Your task to perform on an android device: Clear the cart on ebay. Search for razer kraken on ebay, select the first entry, and add it to the cart. Image 0: 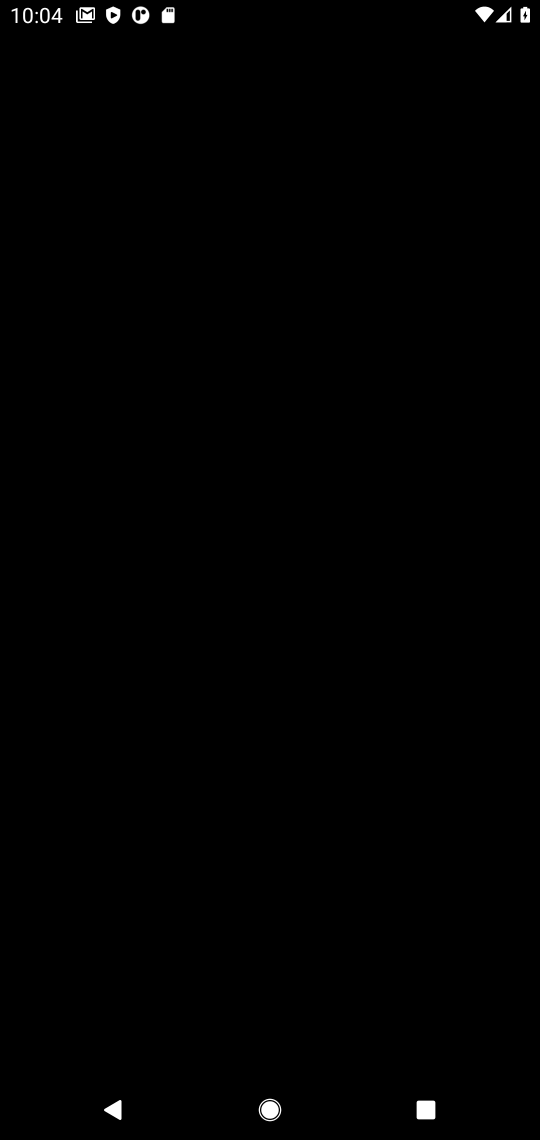
Step 0: press home button
Your task to perform on an android device: Clear the cart on ebay. Search for razer kraken on ebay, select the first entry, and add it to the cart. Image 1: 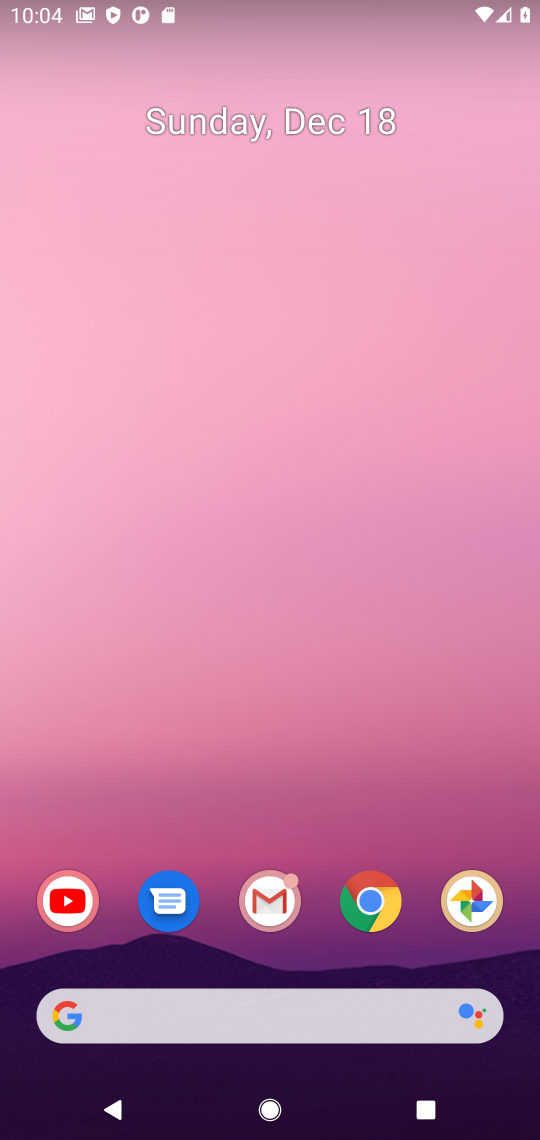
Step 1: click (358, 929)
Your task to perform on an android device: Clear the cart on ebay. Search for razer kraken on ebay, select the first entry, and add it to the cart. Image 2: 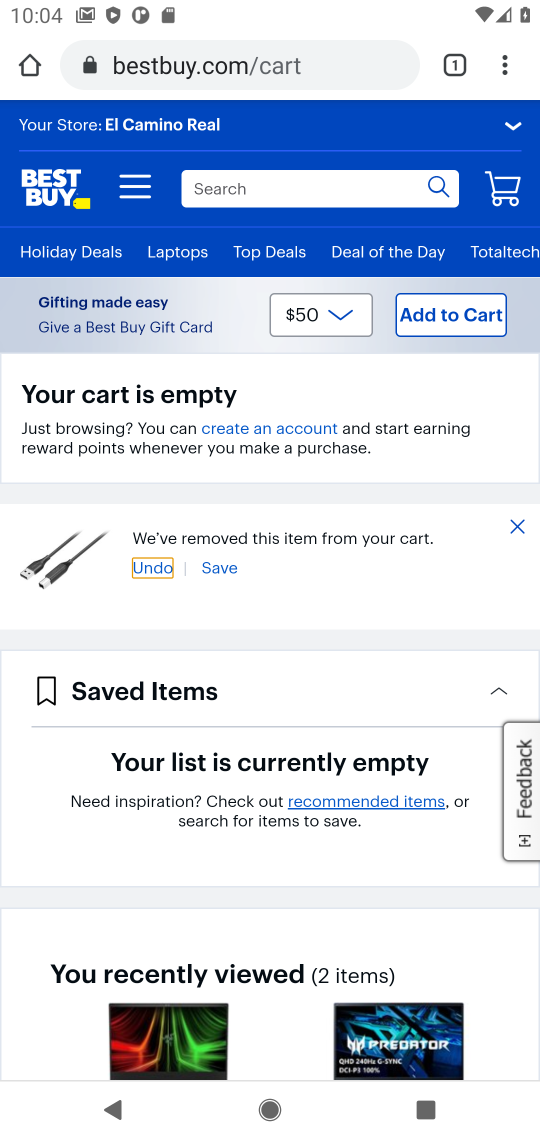
Step 2: click (161, 59)
Your task to perform on an android device: Clear the cart on ebay. Search for razer kraken on ebay, select the first entry, and add it to the cart. Image 3: 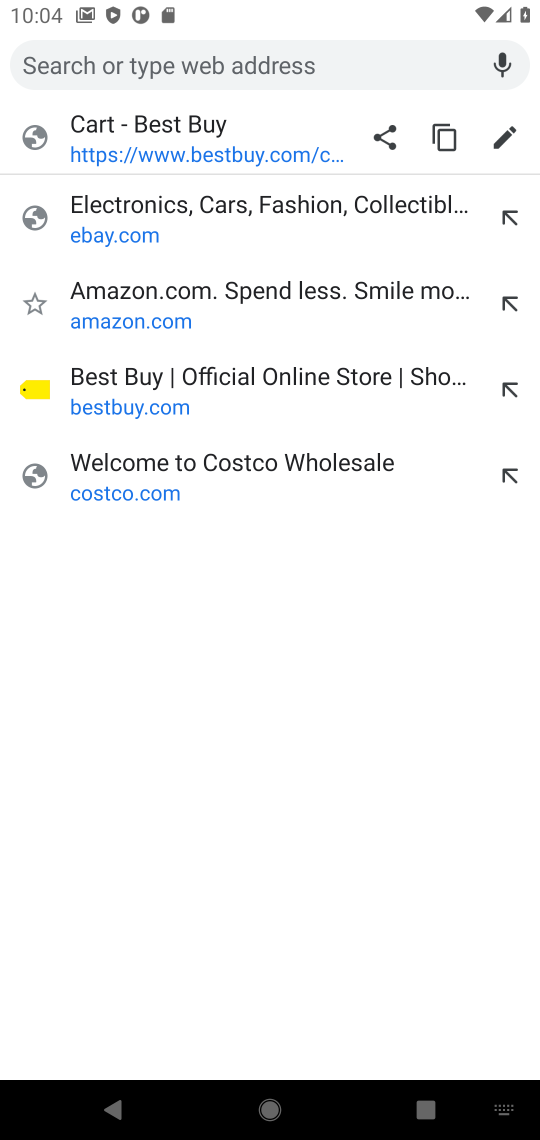
Step 3: type "ebay"
Your task to perform on an android device: Clear the cart on ebay. Search for razer kraken on ebay, select the first entry, and add it to the cart. Image 4: 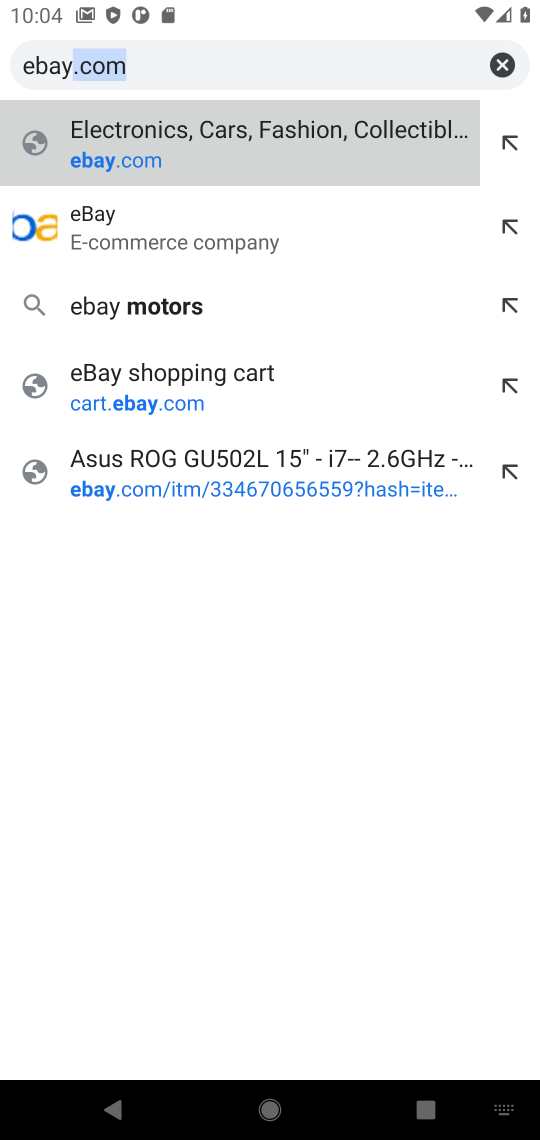
Step 4: click (229, 142)
Your task to perform on an android device: Clear the cart on ebay. Search for razer kraken on ebay, select the first entry, and add it to the cart. Image 5: 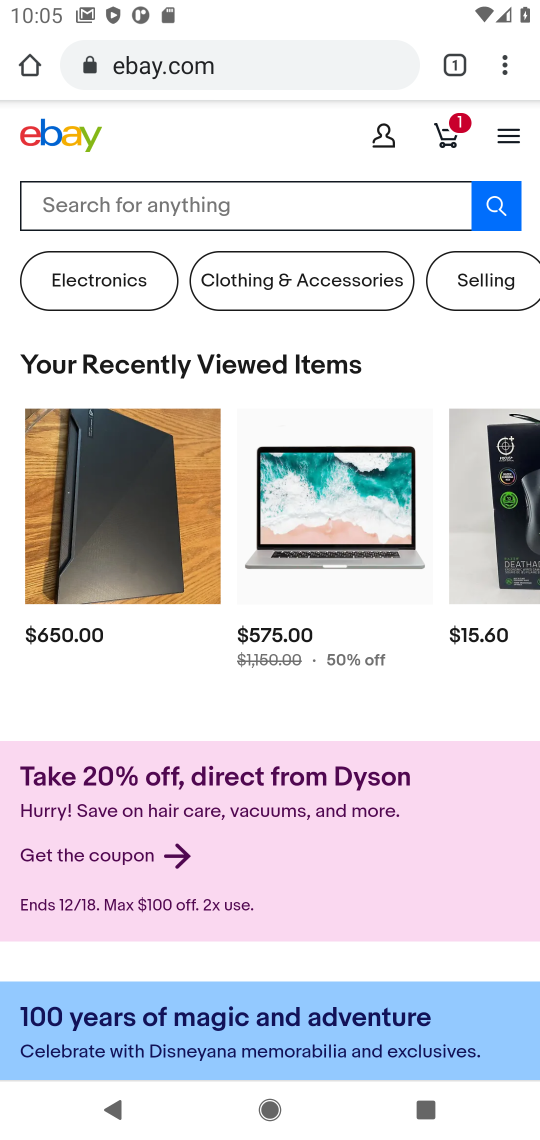
Step 5: click (236, 224)
Your task to perform on an android device: Clear the cart on ebay. Search for razer kraken on ebay, select the first entry, and add it to the cart. Image 6: 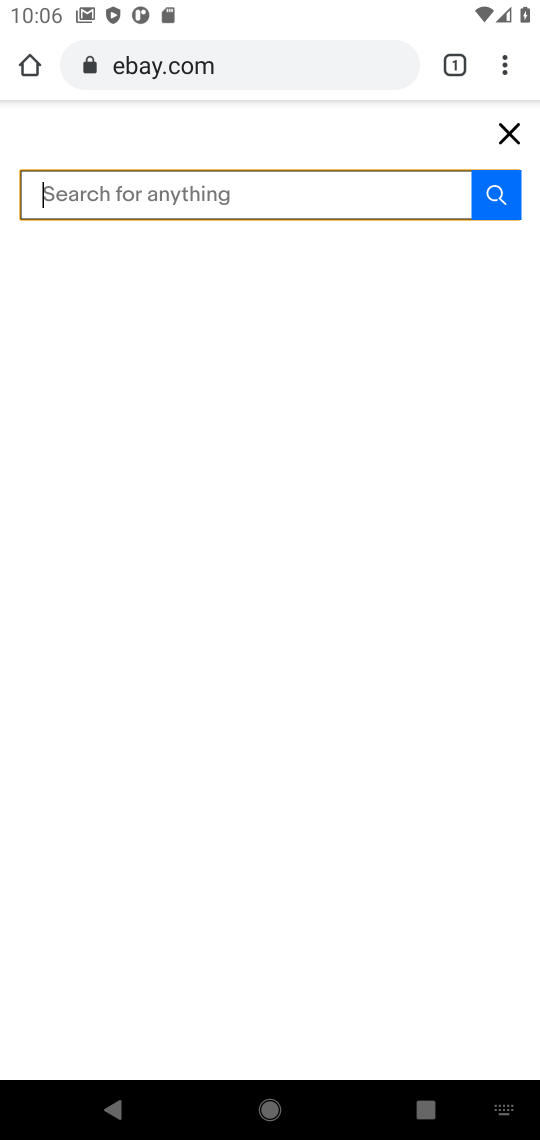
Step 6: task complete